Your task to perform on an android device: delete a single message in the gmail app Image 0: 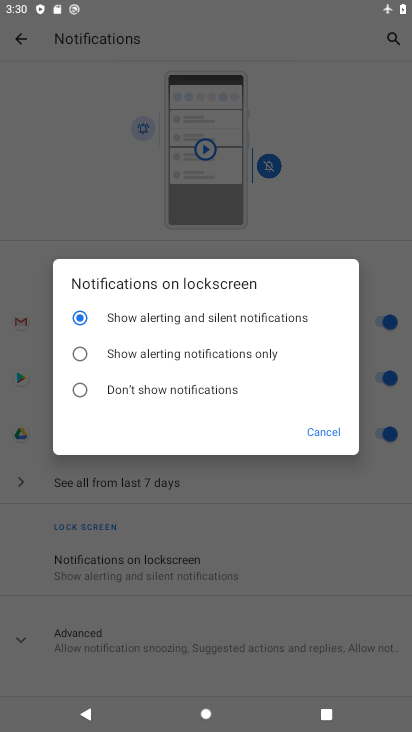
Step 0: press home button
Your task to perform on an android device: delete a single message in the gmail app Image 1: 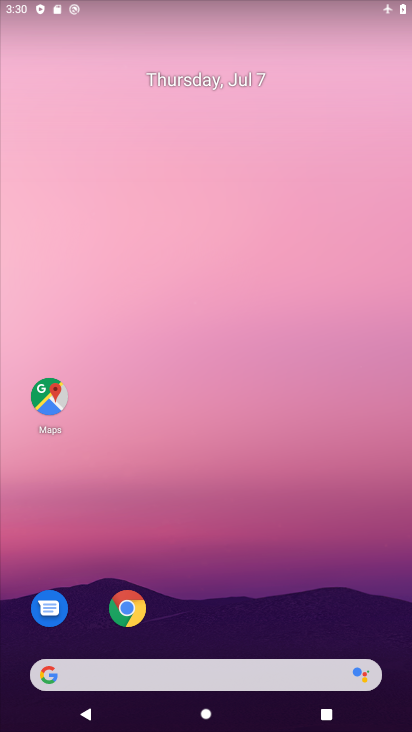
Step 1: drag from (231, 625) to (136, 80)
Your task to perform on an android device: delete a single message in the gmail app Image 2: 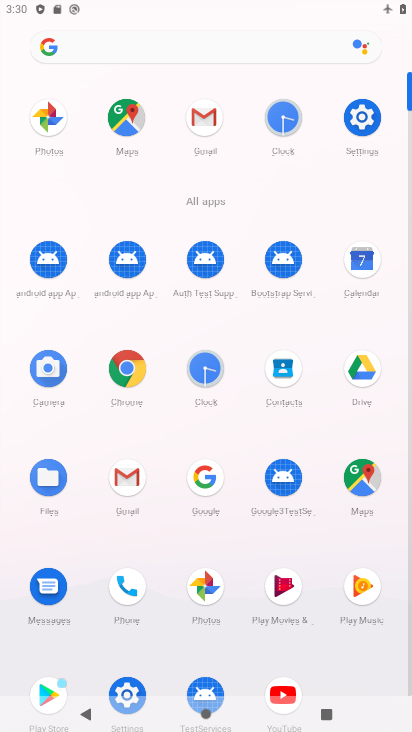
Step 2: click (199, 102)
Your task to perform on an android device: delete a single message in the gmail app Image 3: 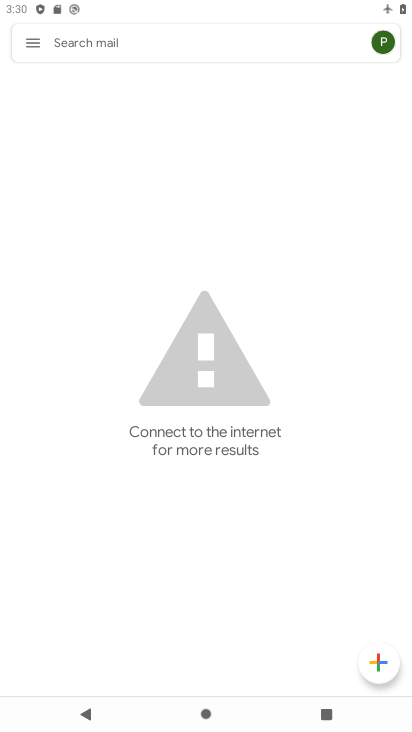
Step 3: click (35, 45)
Your task to perform on an android device: delete a single message in the gmail app Image 4: 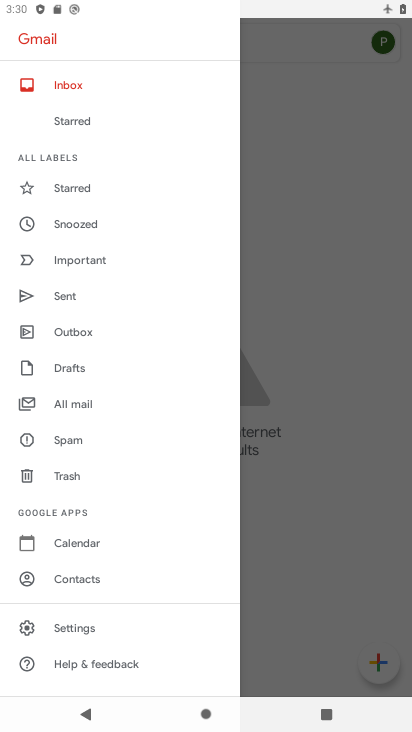
Step 4: click (92, 409)
Your task to perform on an android device: delete a single message in the gmail app Image 5: 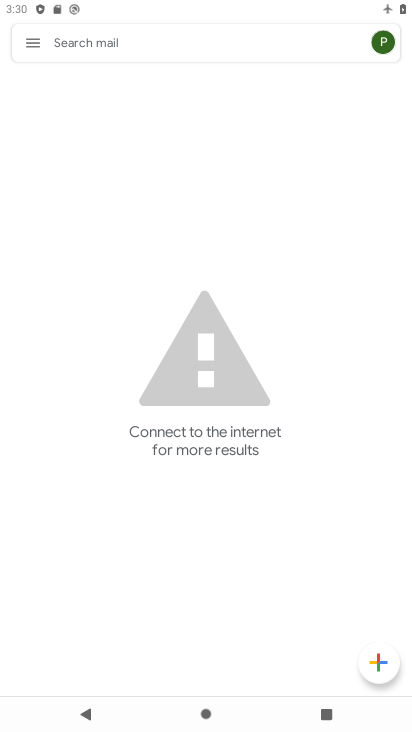
Step 5: task complete